Your task to perform on an android device: turn notification dots off Image 0: 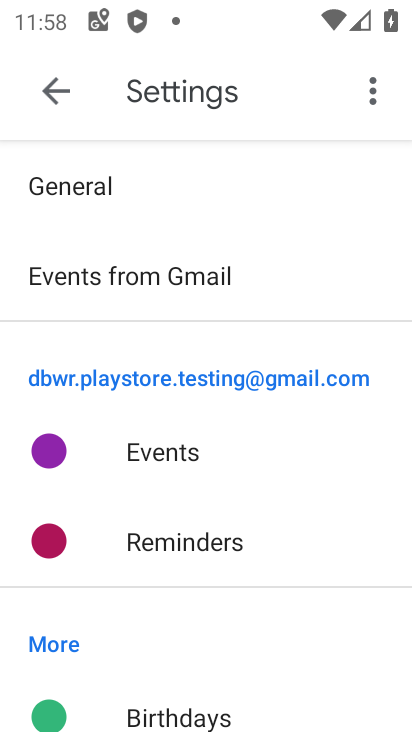
Step 0: press home button
Your task to perform on an android device: turn notification dots off Image 1: 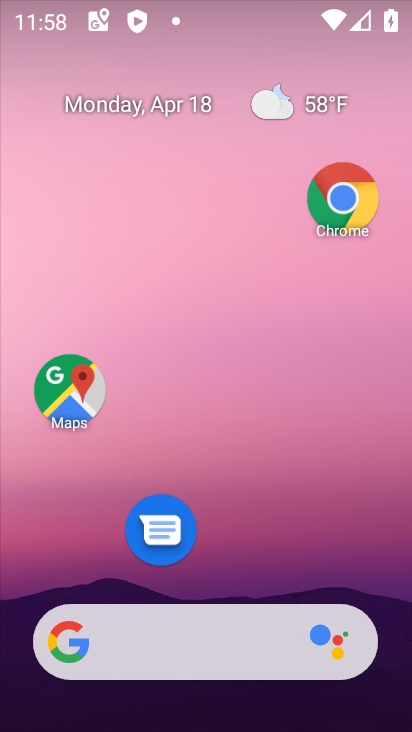
Step 1: drag from (277, 580) to (321, 83)
Your task to perform on an android device: turn notification dots off Image 2: 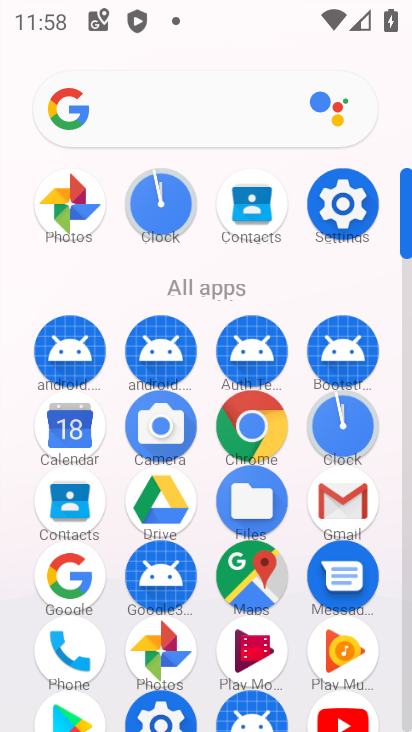
Step 2: click (332, 210)
Your task to perform on an android device: turn notification dots off Image 3: 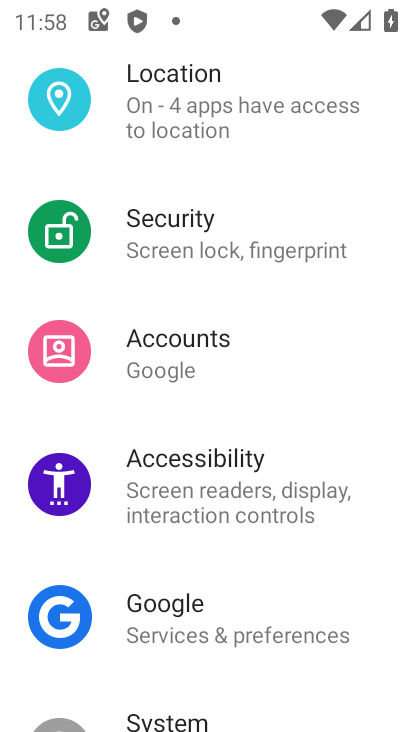
Step 3: drag from (273, 197) to (260, 571)
Your task to perform on an android device: turn notification dots off Image 4: 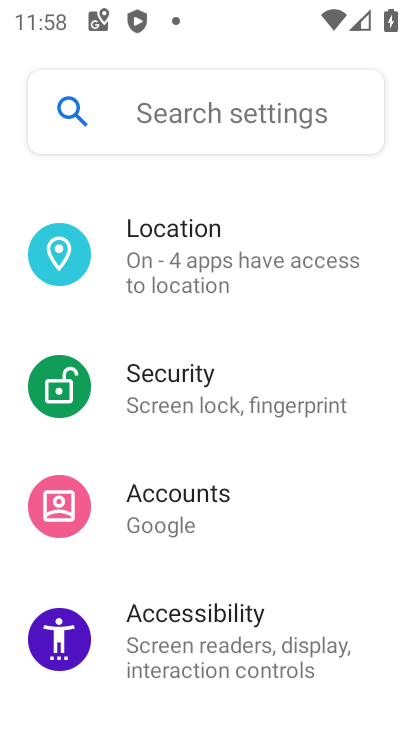
Step 4: drag from (286, 199) to (191, 642)
Your task to perform on an android device: turn notification dots off Image 5: 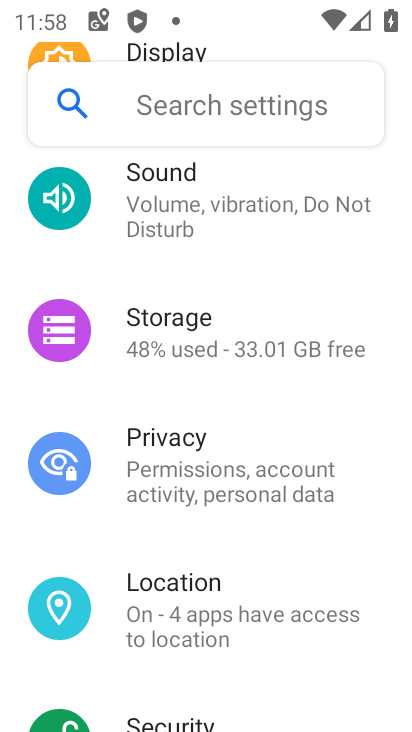
Step 5: drag from (257, 272) to (152, 697)
Your task to perform on an android device: turn notification dots off Image 6: 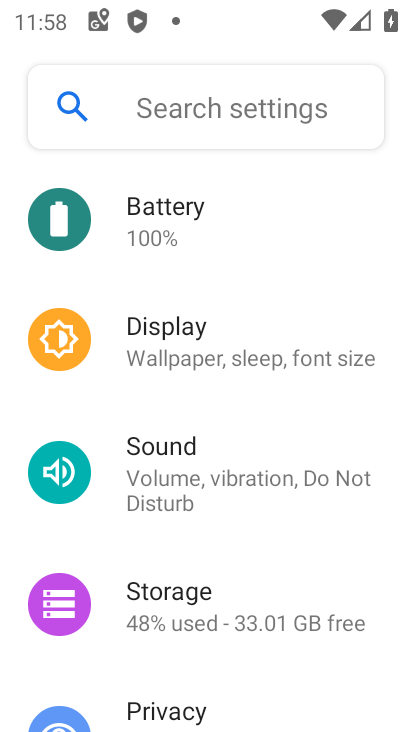
Step 6: drag from (276, 289) to (210, 653)
Your task to perform on an android device: turn notification dots off Image 7: 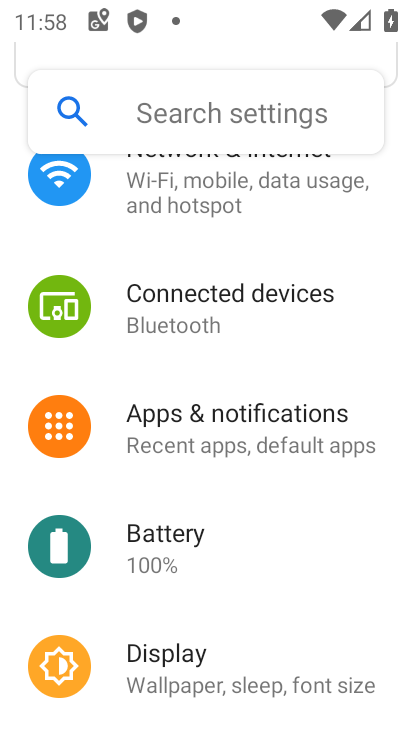
Step 7: click (234, 429)
Your task to perform on an android device: turn notification dots off Image 8: 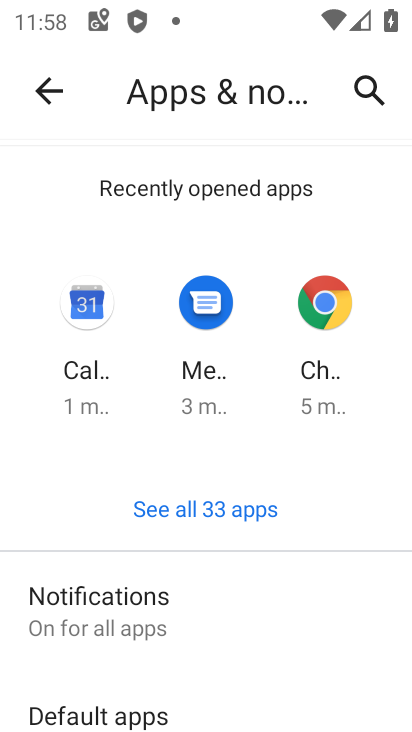
Step 8: drag from (264, 638) to (245, 392)
Your task to perform on an android device: turn notification dots off Image 9: 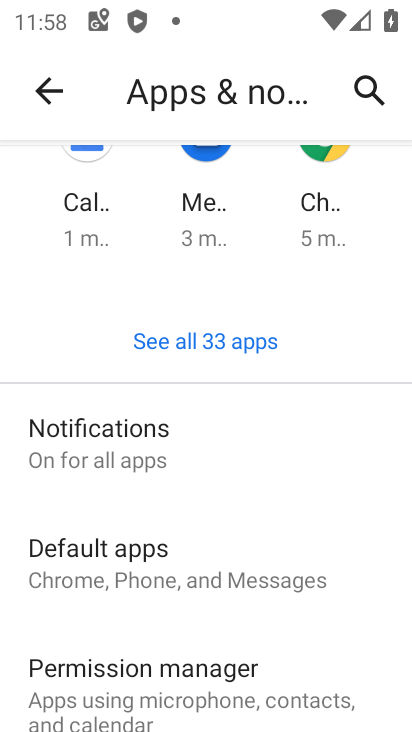
Step 9: click (197, 442)
Your task to perform on an android device: turn notification dots off Image 10: 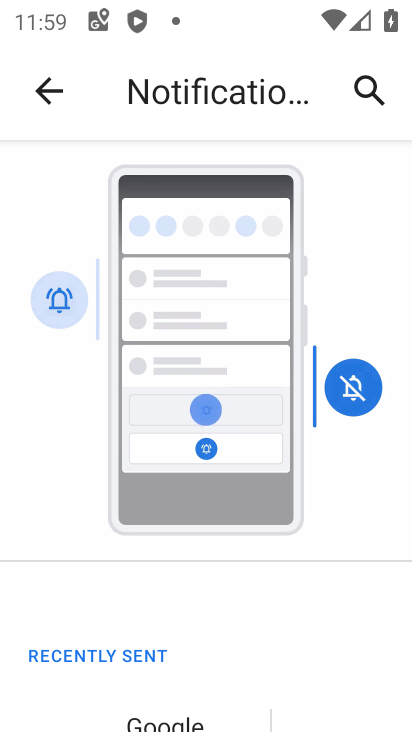
Step 10: drag from (221, 626) to (270, 207)
Your task to perform on an android device: turn notification dots off Image 11: 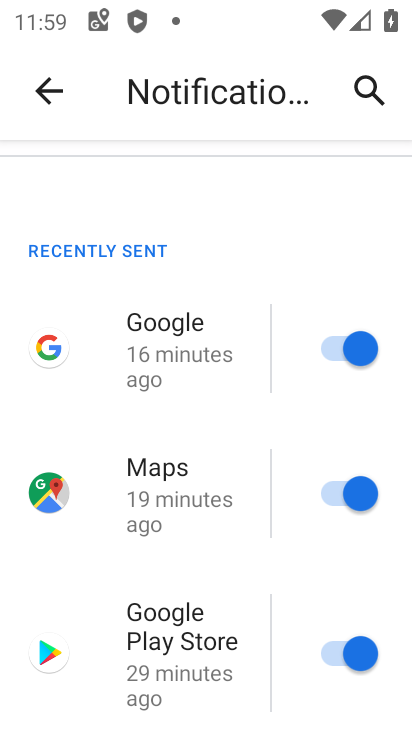
Step 11: drag from (234, 536) to (240, 318)
Your task to perform on an android device: turn notification dots off Image 12: 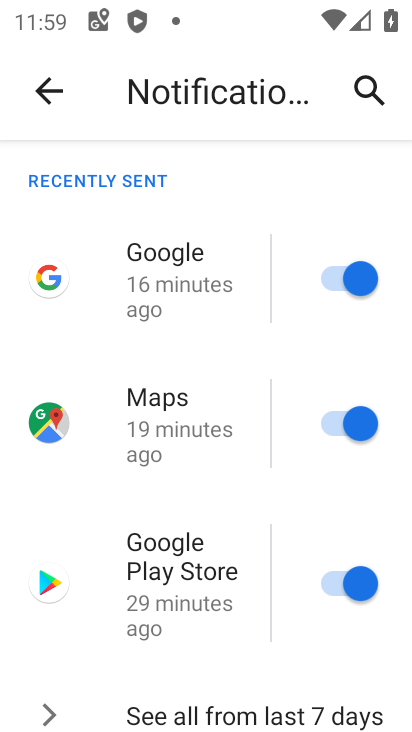
Step 12: drag from (211, 583) to (228, 343)
Your task to perform on an android device: turn notification dots off Image 13: 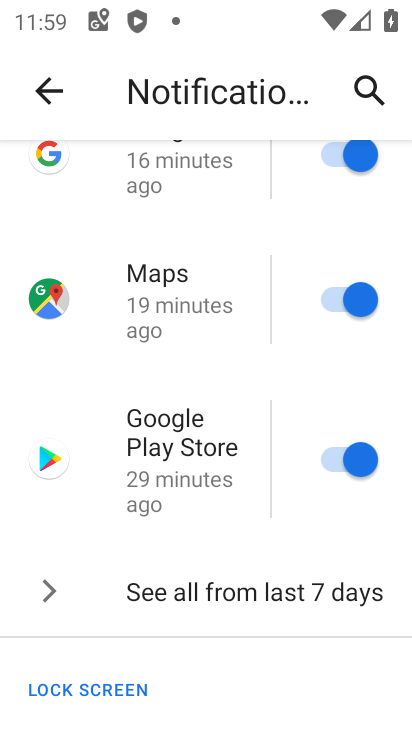
Step 13: drag from (214, 606) to (260, 379)
Your task to perform on an android device: turn notification dots off Image 14: 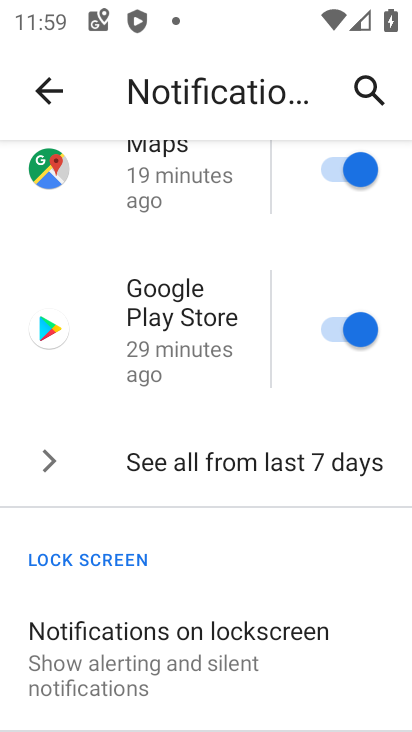
Step 14: drag from (245, 622) to (234, 195)
Your task to perform on an android device: turn notification dots off Image 15: 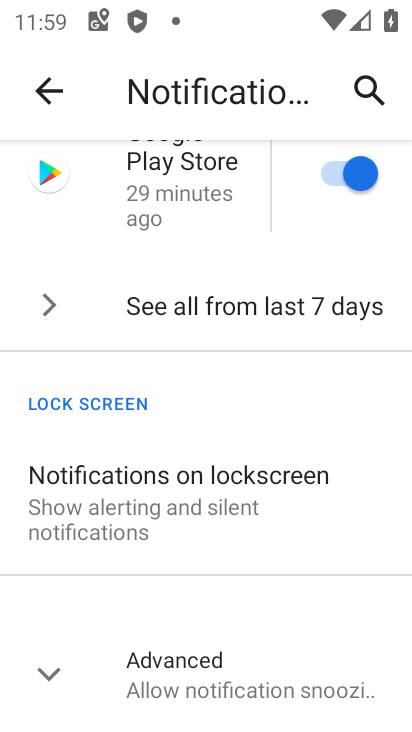
Step 15: drag from (214, 637) to (216, 330)
Your task to perform on an android device: turn notification dots off Image 16: 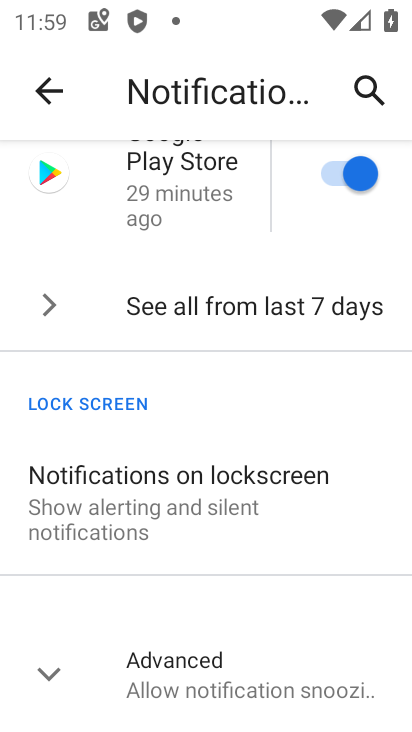
Step 16: click (227, 677)
Your task to perform on an android device: turn notification dots off Image 17: 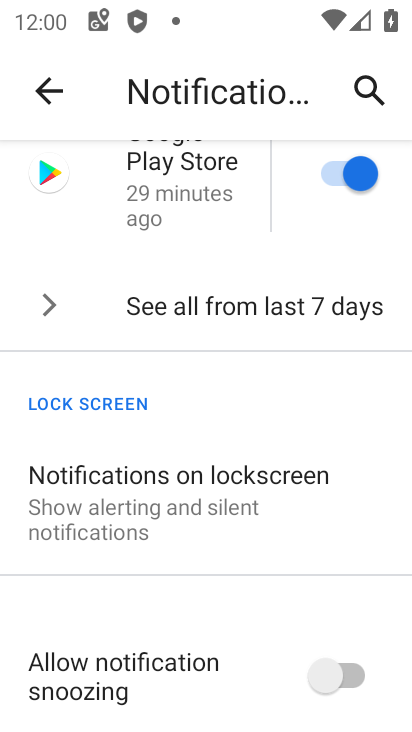
Step 17: task complete